Your task to perform on an android device: Go to display settings Image 0: 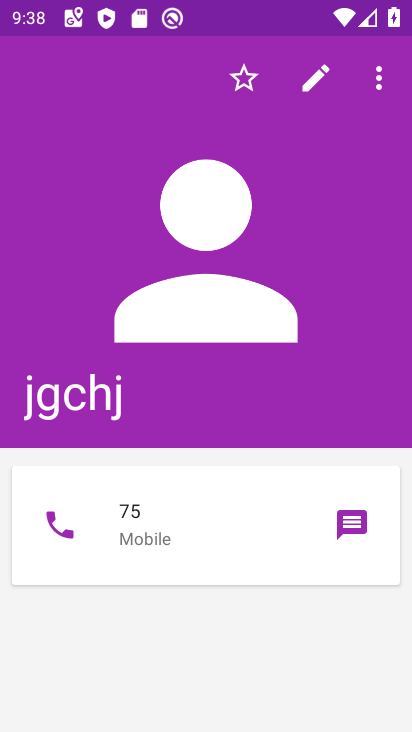
Step 0: press home button
Your task to perform on an android device: Go to display settings Image 1: 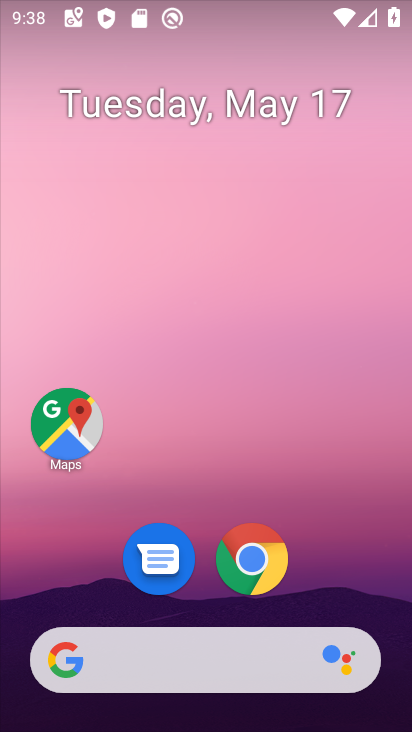
Step 1: drag from (245, 636) to (292, 312)
Your task to perform on an android device: Go to display settings Image 2: 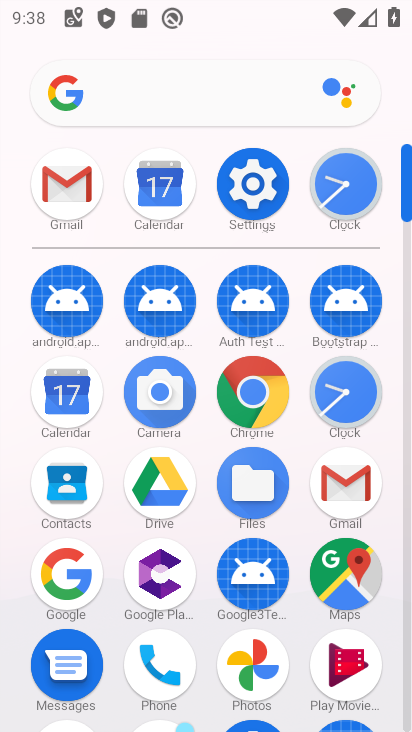
Step 2: click (268, 183)
Your task to perform on an android device: Go to display settings Image 3: 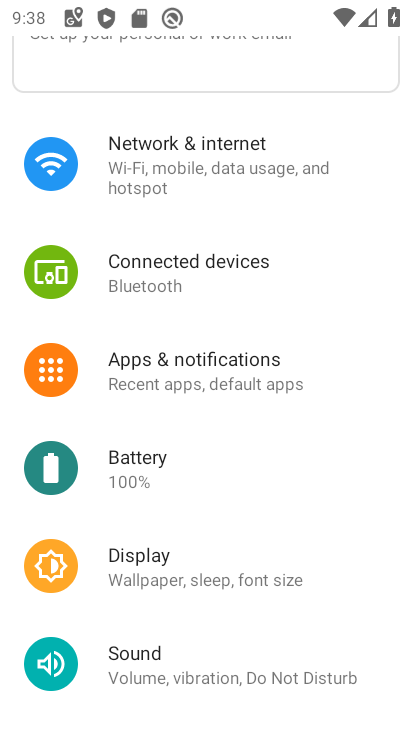
Step 3: click (207, 573)
Your task to perform on an android device: Go to display settings Image 4: 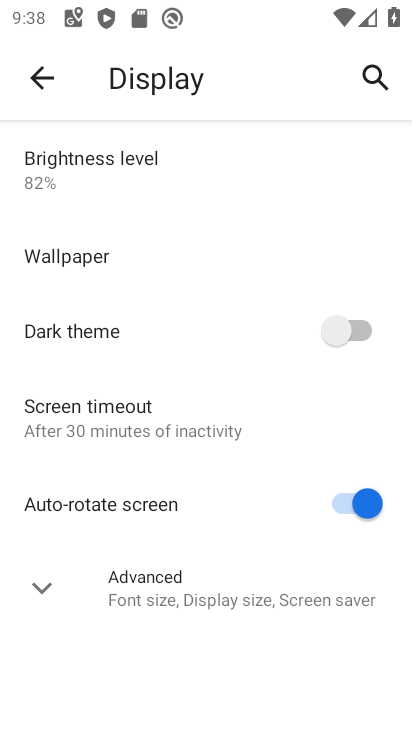
Step 4: task complete